Your task to perform on an android device: delete the emails in spam in the gmail app Image 0: 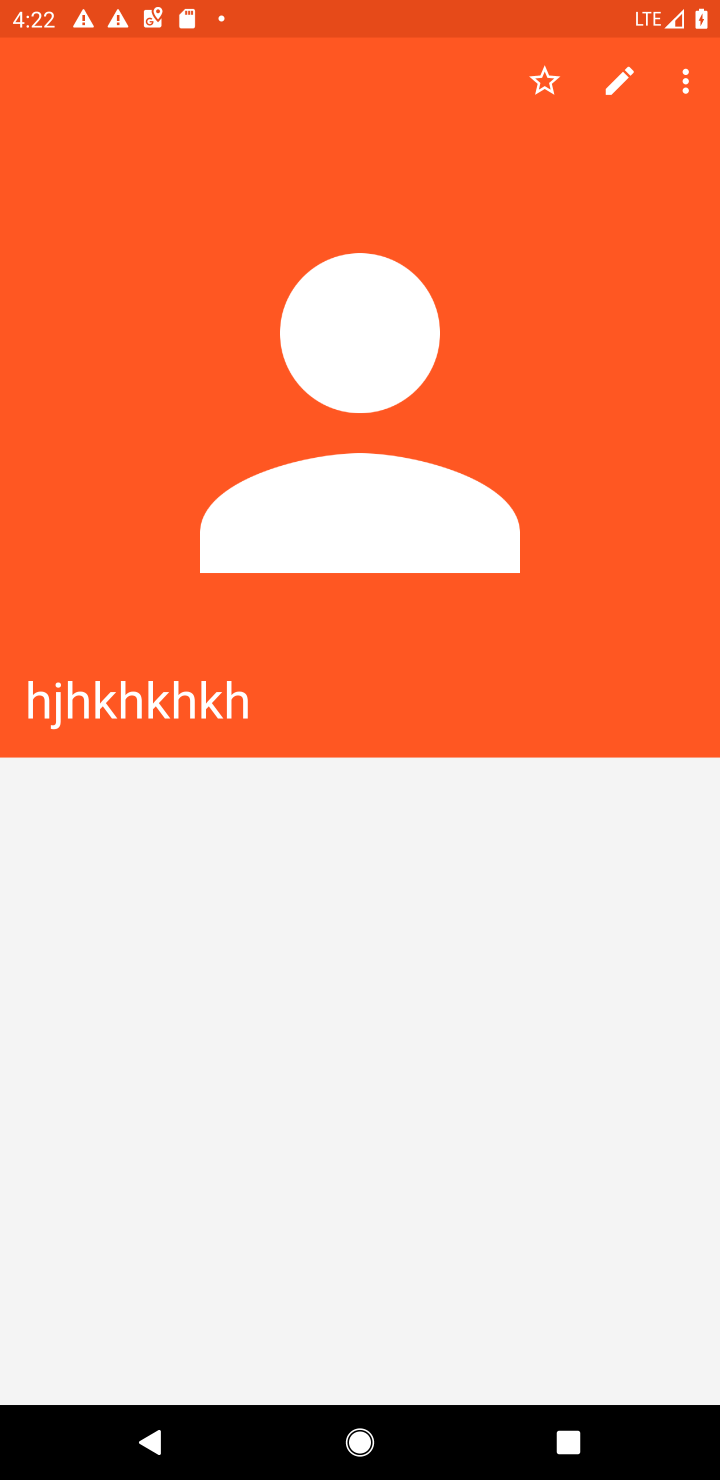
Step 0: press home button
Your task to perform on an android device: delete the emails in spam in the gmail app Image 1: 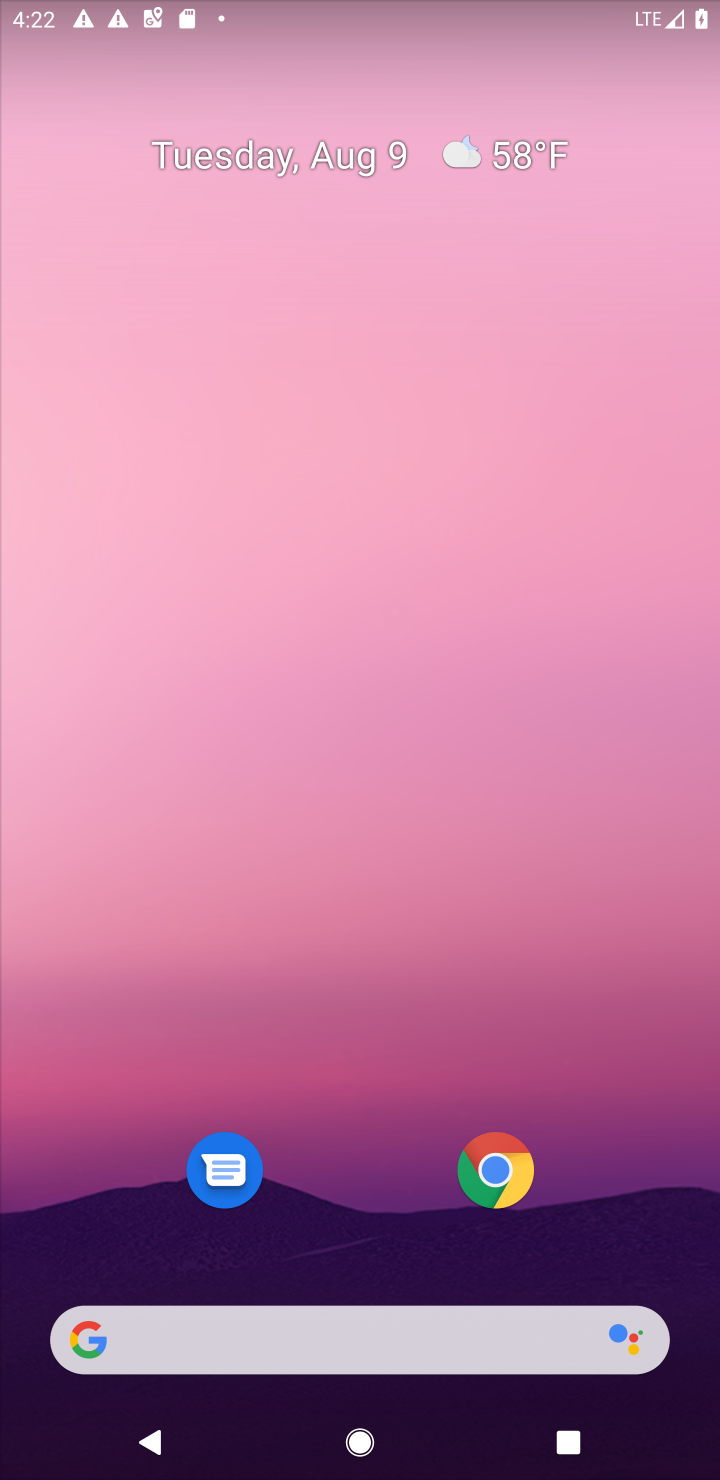
Step 1: drag from (355, 677) to (313, 136)
Your task to perform on an android device: delete the emails in spam in the gmail app Image 2: 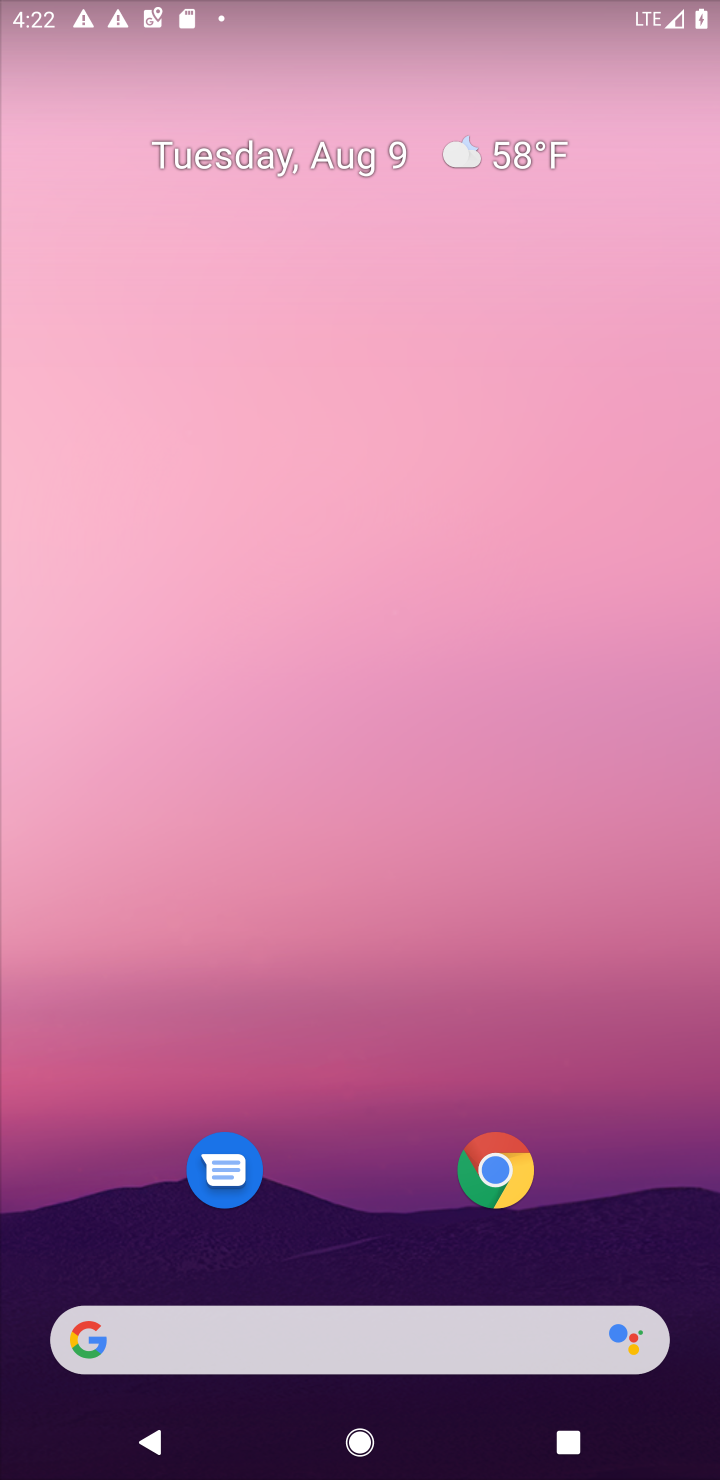
Step 2: drag from (382, 1236) to (294, 154)
Your task to perform on an android device: delete the emails in spam in the gmail app Image 3: 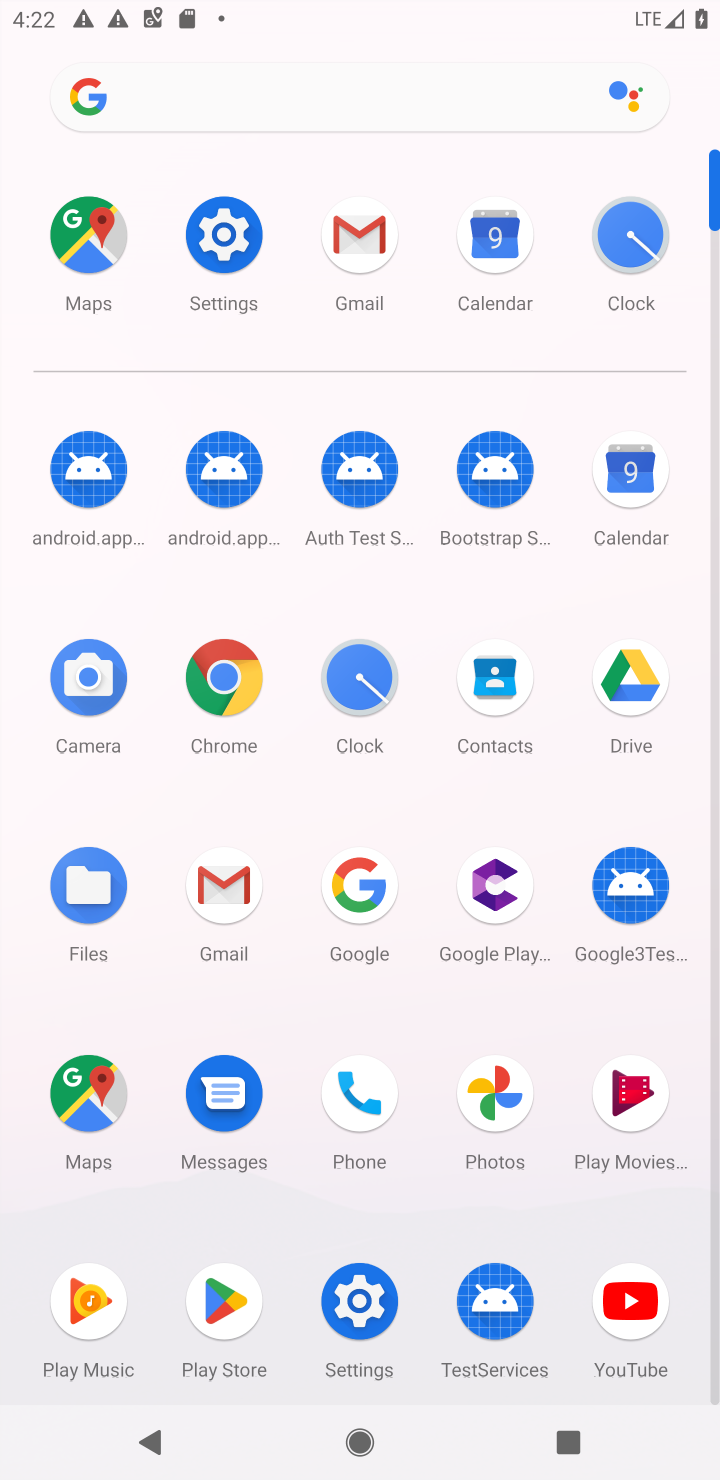
Step 3: click (343, 230)
Your task to perform on an android device: delete the emails in spam in the gmail app Image 4: 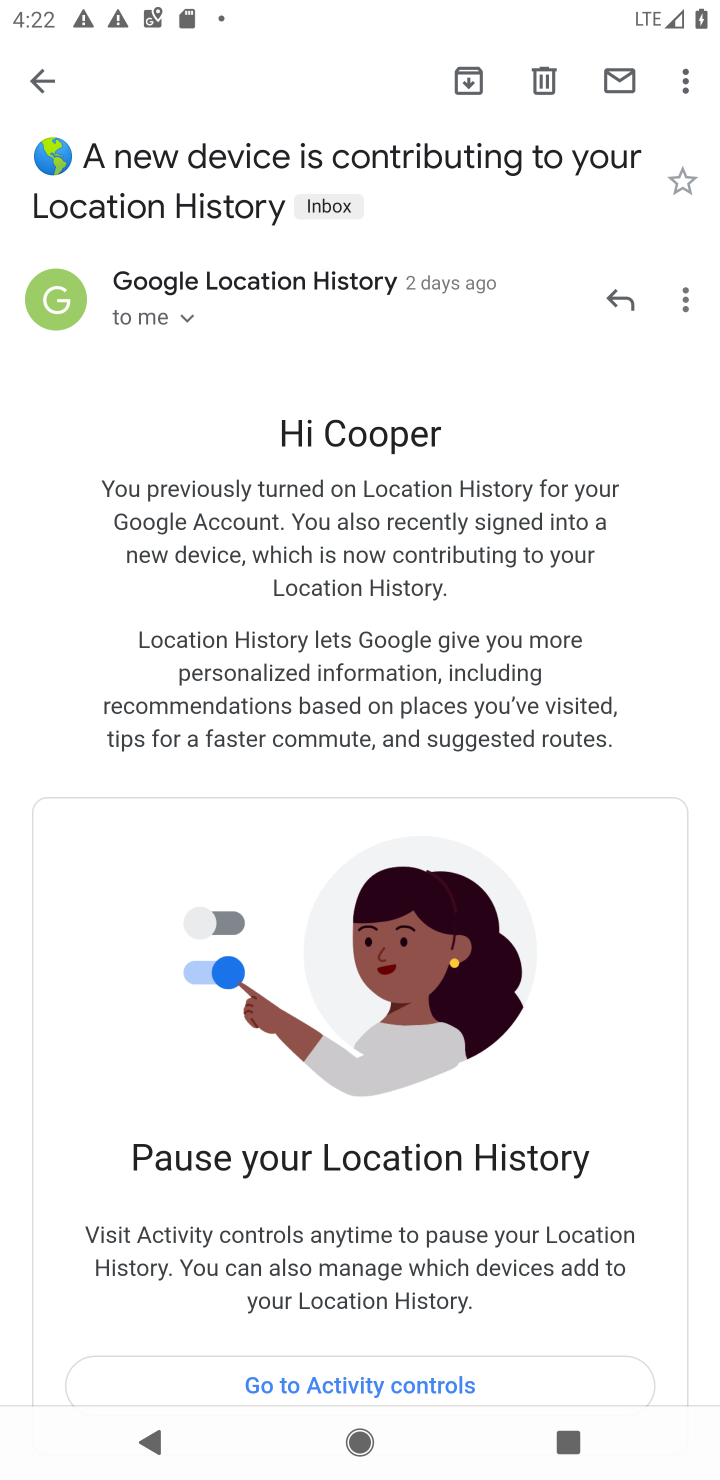
Step 4: click (678, 75)
Your task to perform on an android device: delete the emails in spam in the gmail app Image 5: 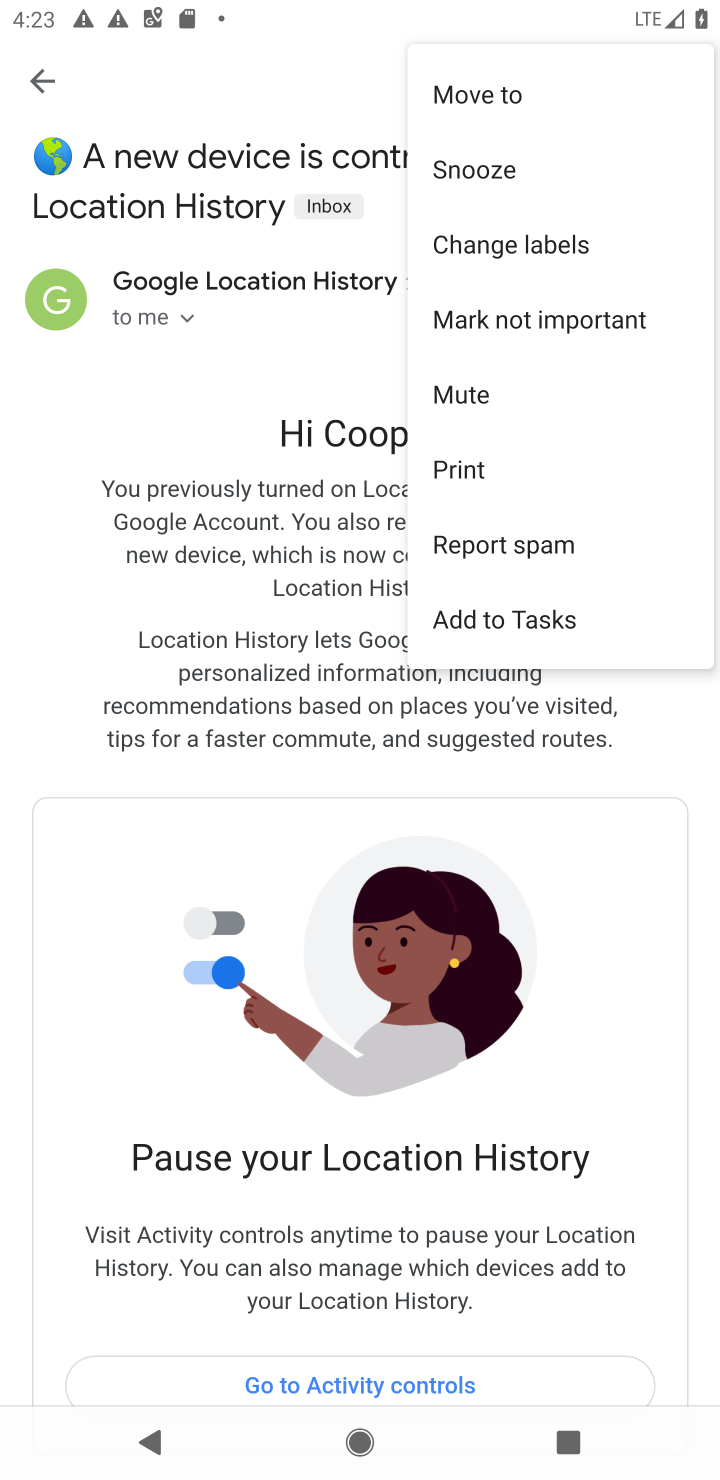
Step 5: click (24, 71)
Your task to perform on an android device: delete the emails in spam in the gmail app Image 6: 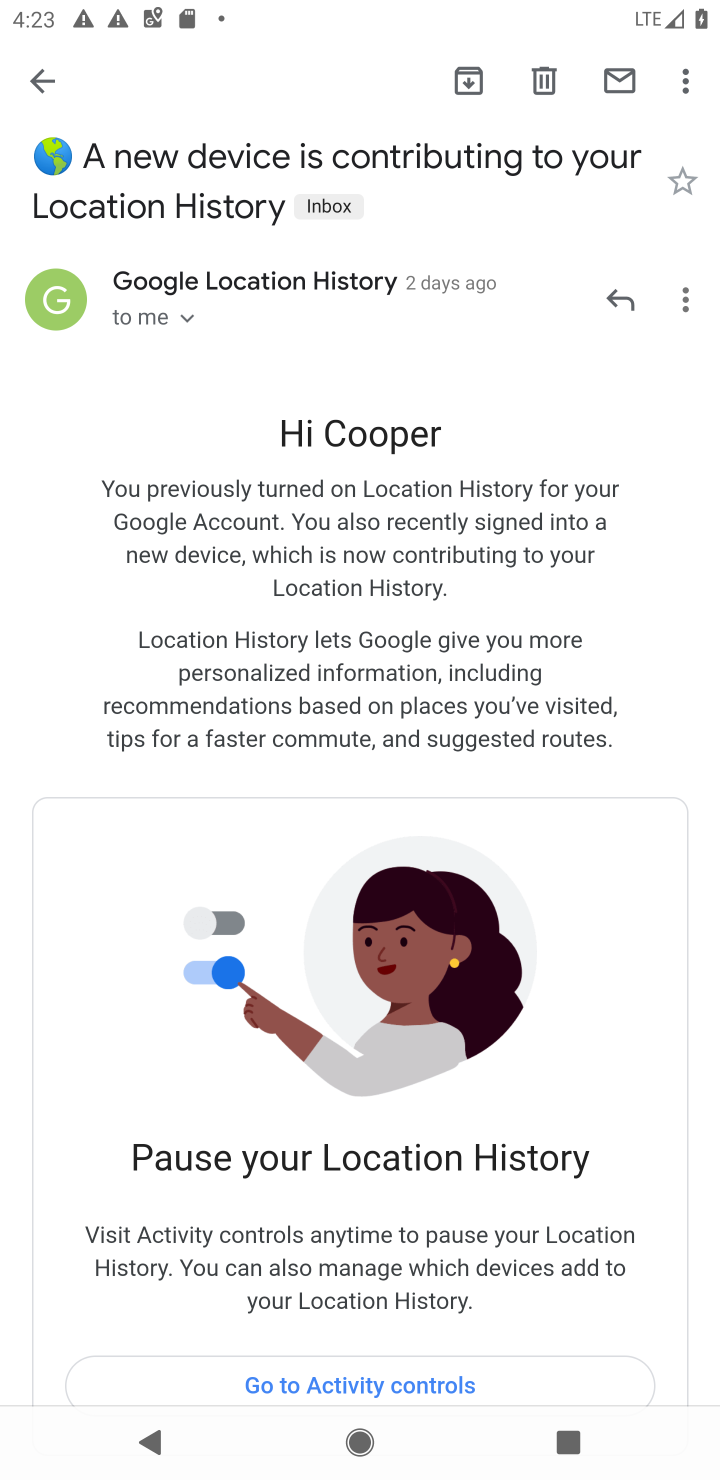
Step 6: click (42, 80)
Your task to perform on an android device: delete the emails in spam in the gmail app Image 7: 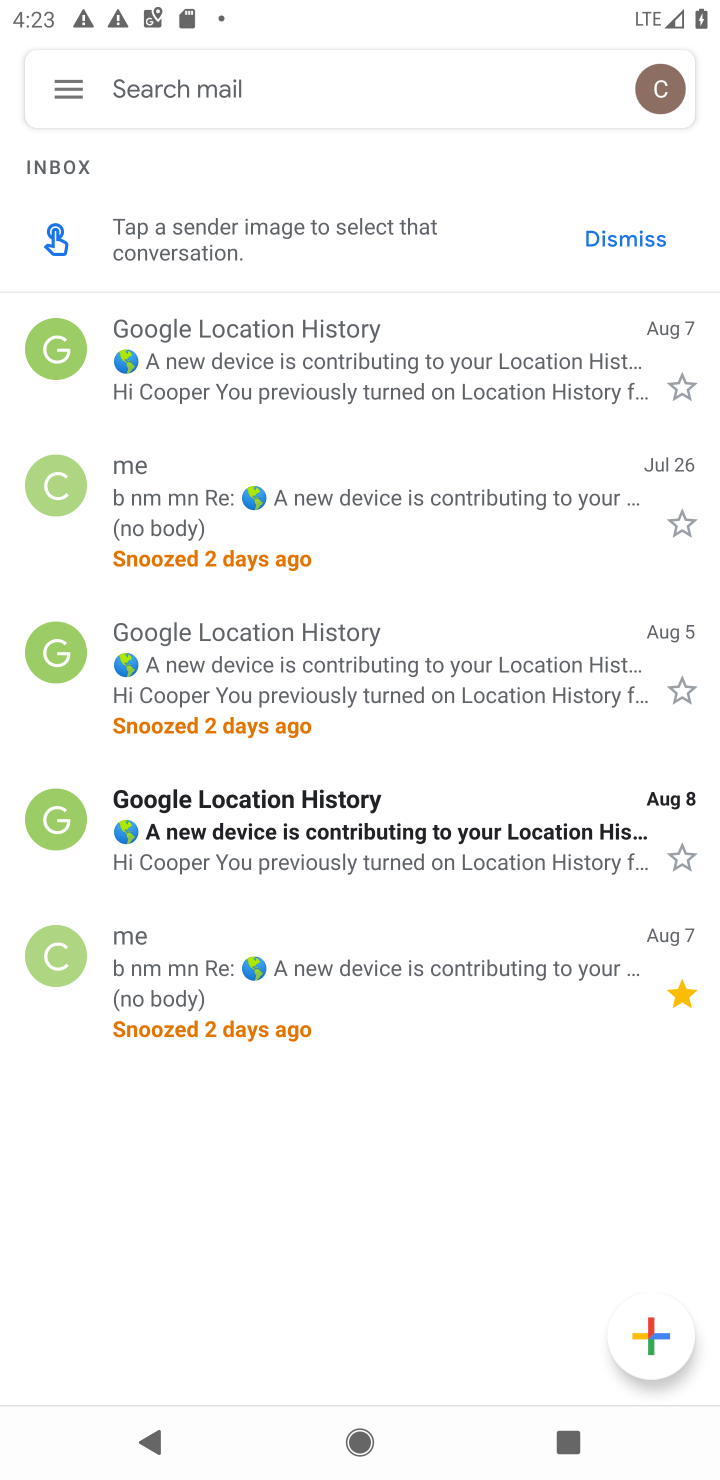
Step 7: click (71, 86)
Your task to perform on an android device: delete the emails in spam in the gmail app Image 8: 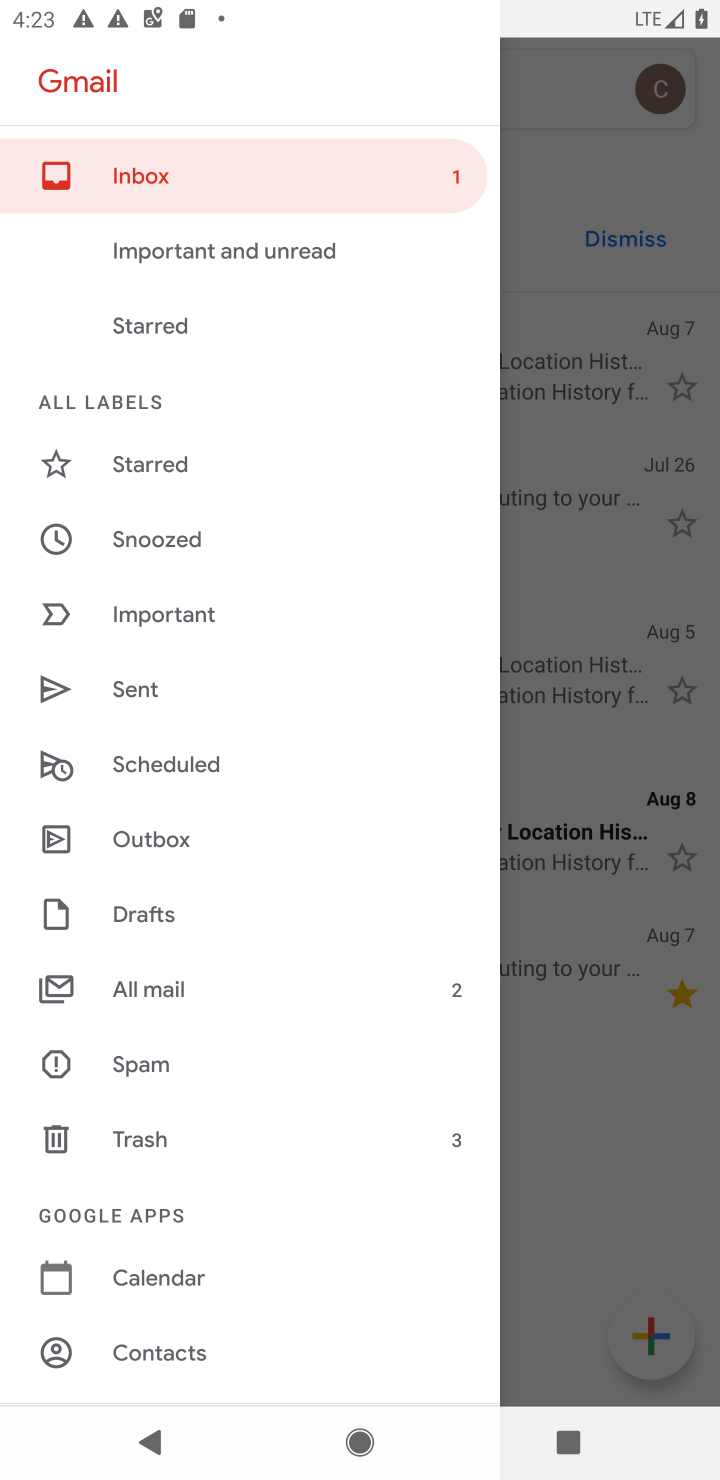
Step 8: click (157, 1066)
Your task to perform on an android device: delete the emails in spam in the gmail app Image 9: 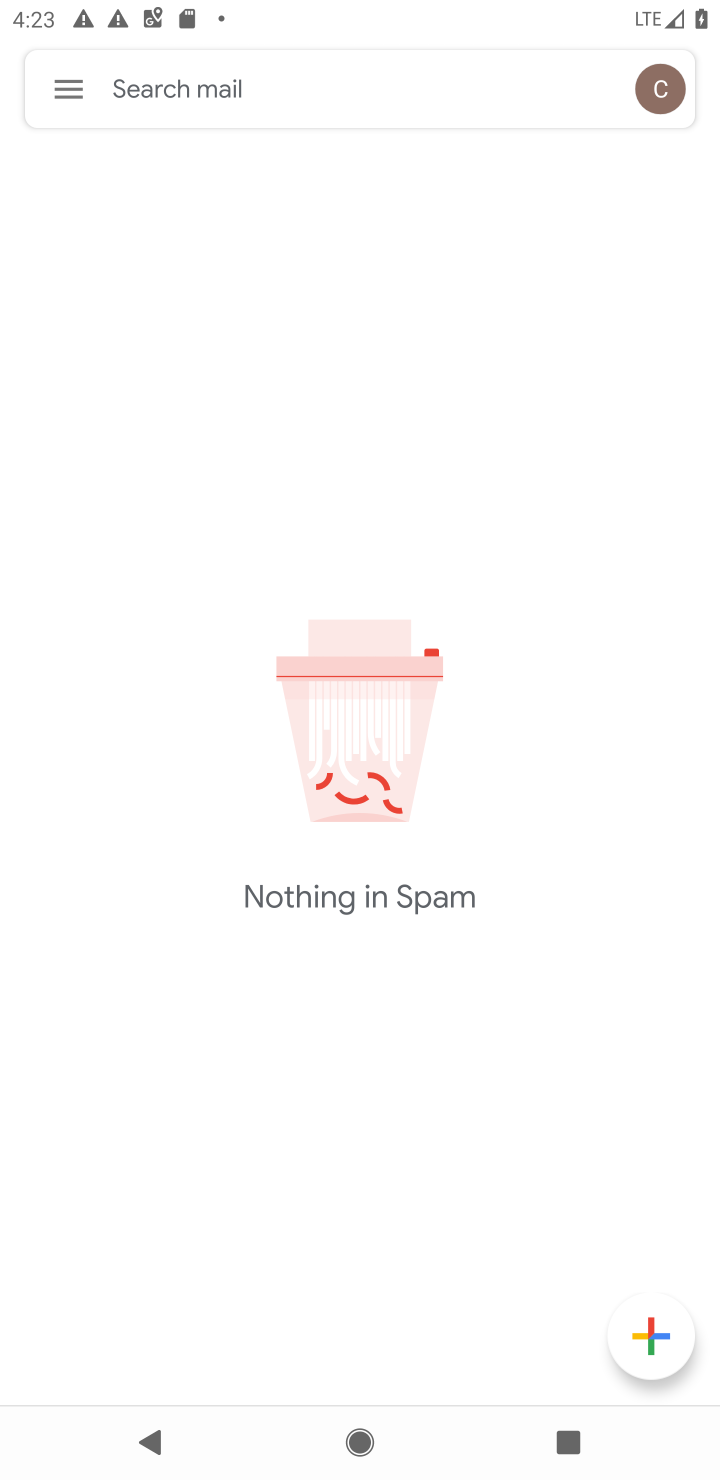
Step 9: task complete